Your task to perform on an android device: set default search engine in the chrome app Image 0: 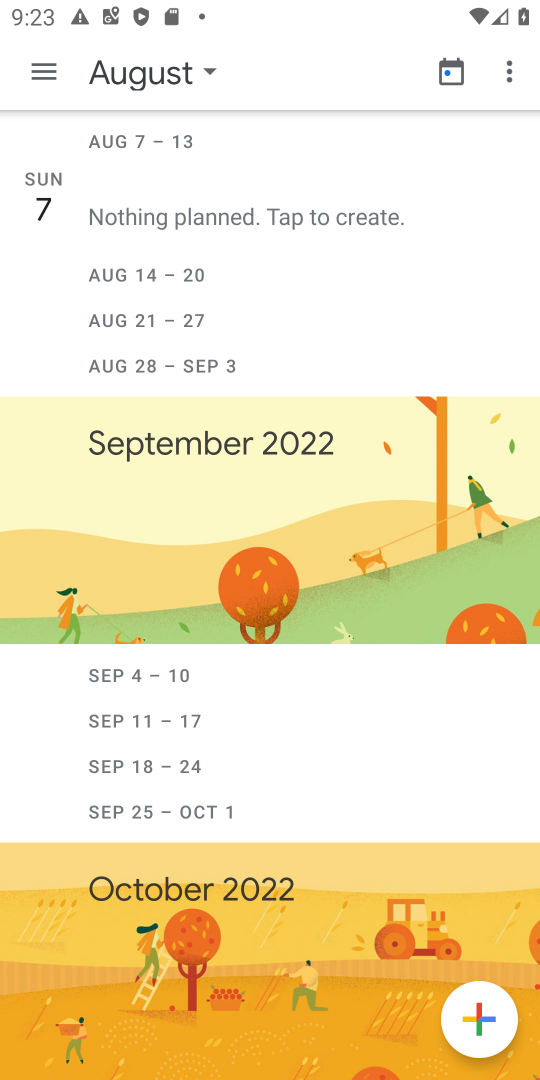
Step 0: press home button
Your task to perform on an android device: set default search engine in the chrome app Image 1: 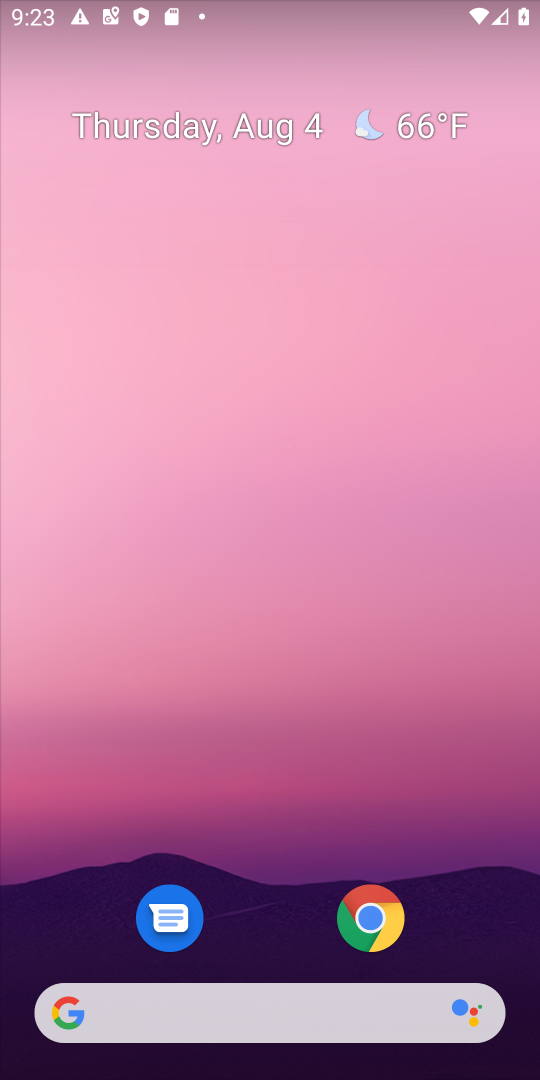
Step 1: click (362, 922)
Your task to perform on an android device: set default search engine in the chrome app Image 2: 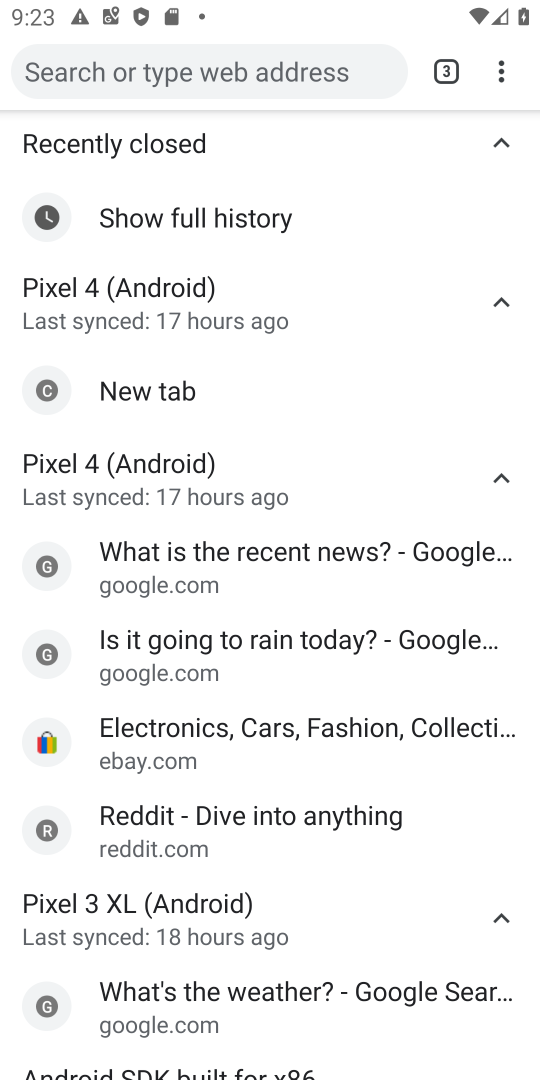
Step 2: click (494, 70)
Your task to perform on an android device: set default search engine in the chrome app Image 3: 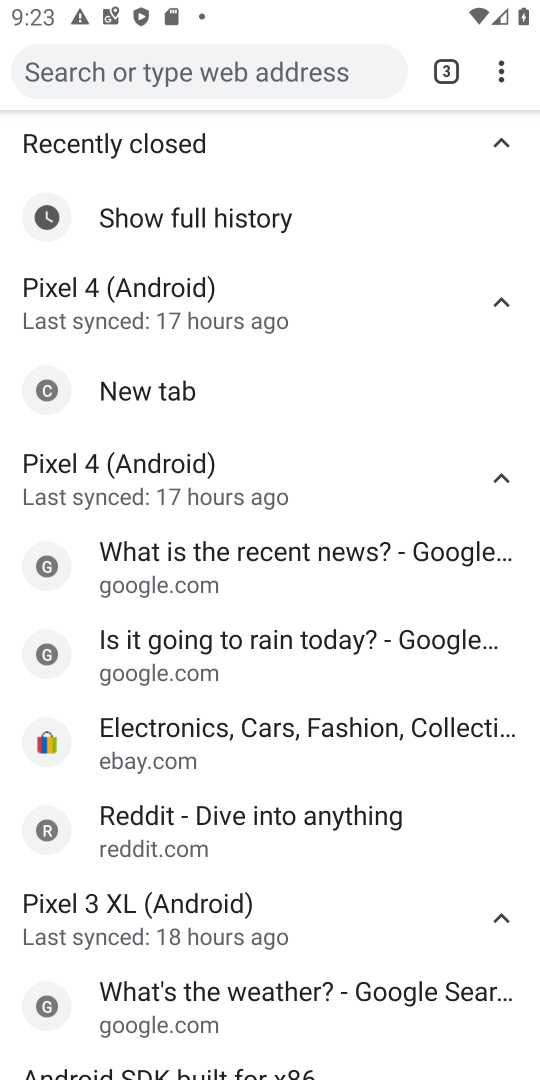
Step 3: click (499, 69)
Your task to perform on an android device: set default search engine in the chrome app Image 4: 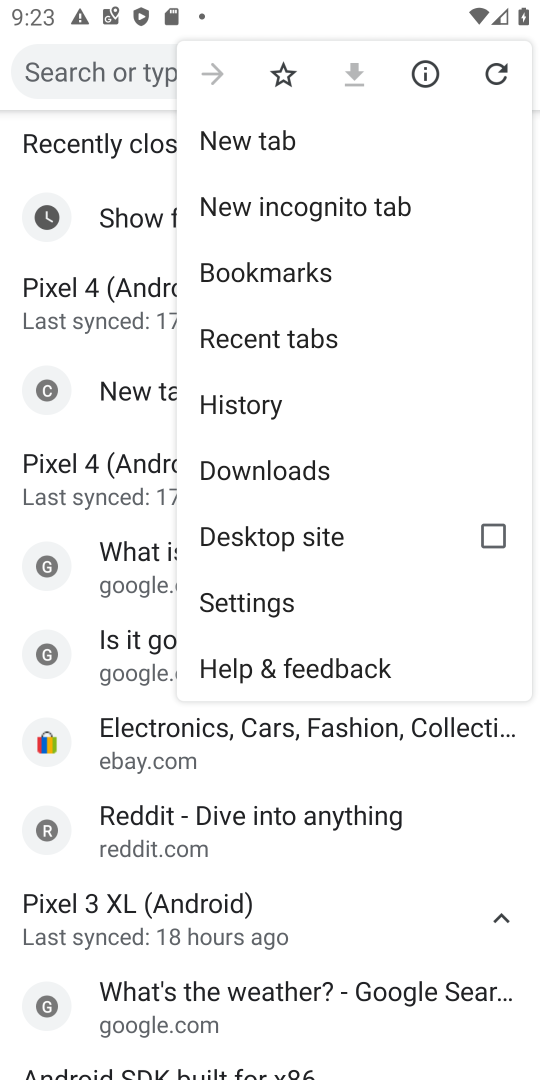
Step 4: click (301, 594)
Your task to perform on an android device: set default search engine in the chrome app Image 5: 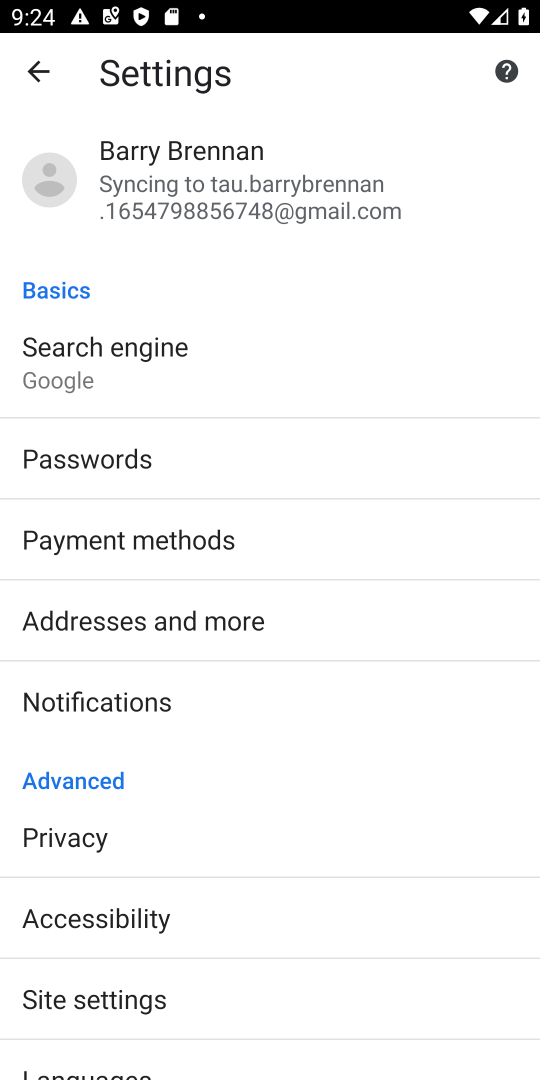
Step 5: click (136, 372)
Your task to perform on an android device: set default search engine in the chrome app Image 6: 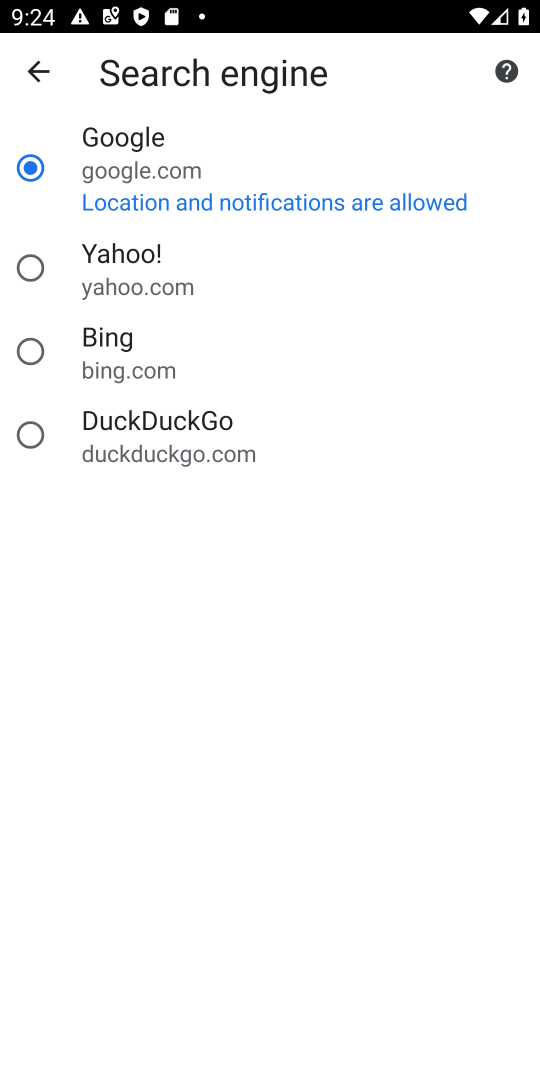
Step 6: click (29, 351)
Your task to perform on an android device: set default search engine in the chrome app Image 7: 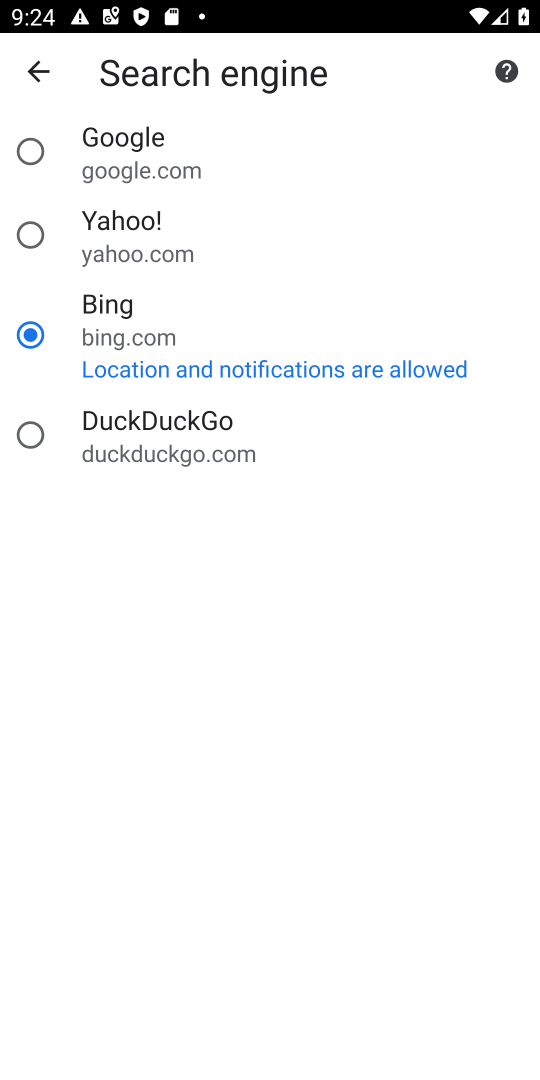
Step 7: task complete